Your task to perform on an android device: Open Google Maps Image 0: 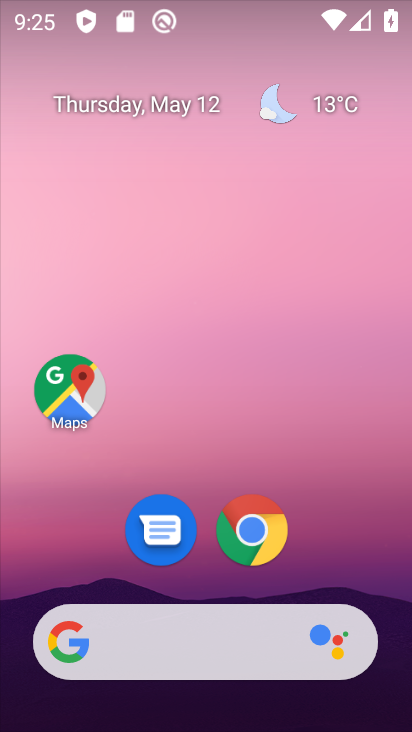
Step 0: click (80, 422)
Your task to perform on an android device: Open Google Maps Image 1: 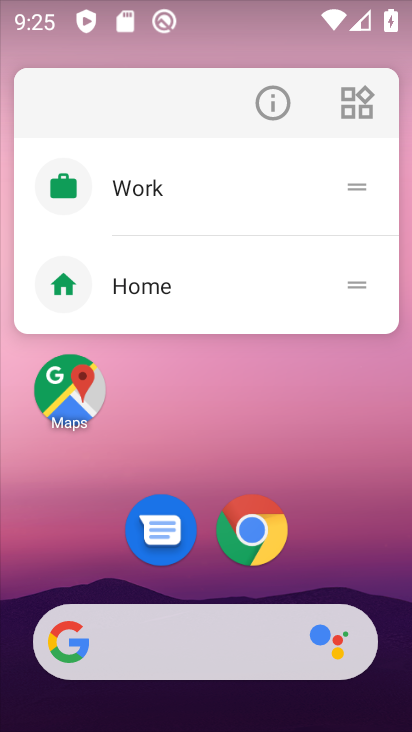
Step 1: click (36, 377)
Your task to perform on an android device: Open Google Maps Image 2: 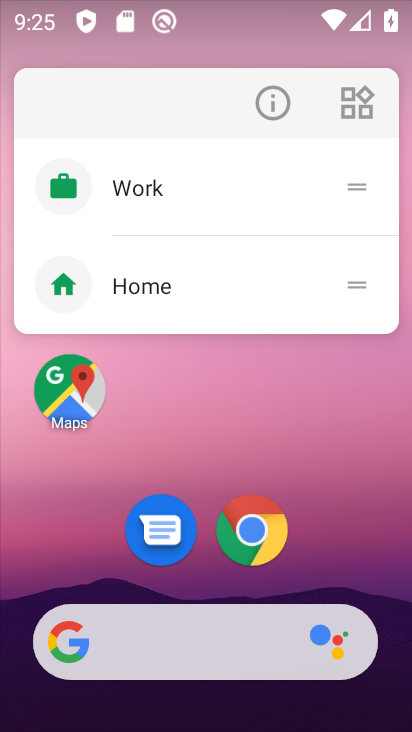
Step 2: click (36, 377)
Your task to perform on an android device: Open Google Maps Image 3: 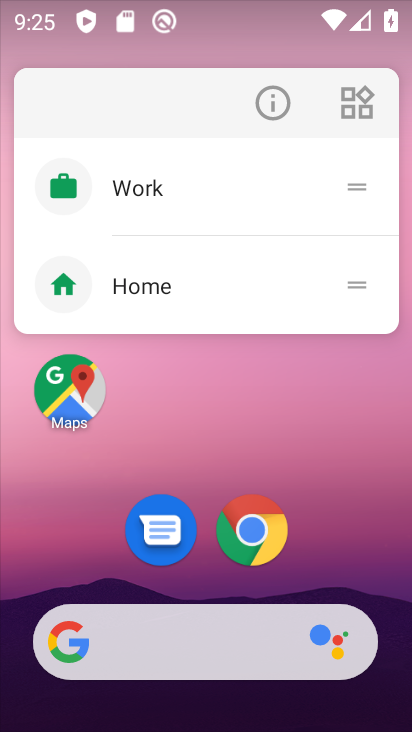
Step 3: click (36, 377)
Your task to perform on an android device: Open Google Maps Image 4: 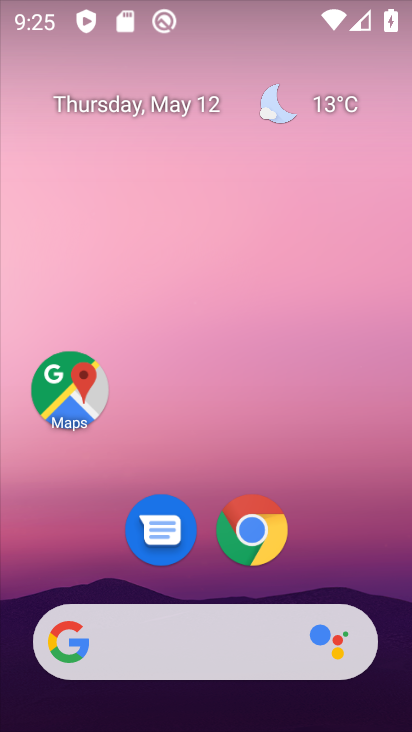
Step 4: click (36, 377)
Your task to perform on an android device: Open Google Maps Image 5: 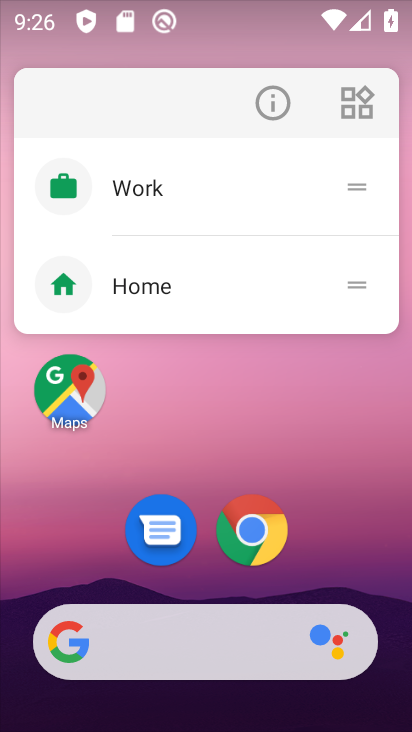
Step 5: click (98, 383)
Your task to perform on an android device: Open Google Maps Image 6: 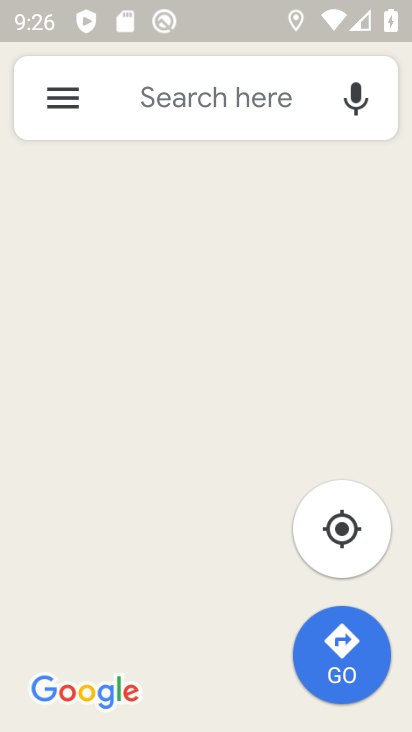
Step 6: task complete